Your task to perform on an android device: Open Maps and search for coffee Image 0: 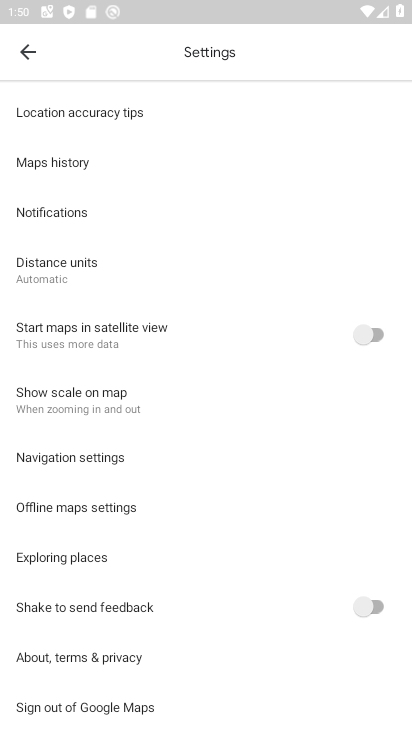
Step 0: click (21, 51)
Your task to perform on an android device: Open Maps and search for coffee Image 1: 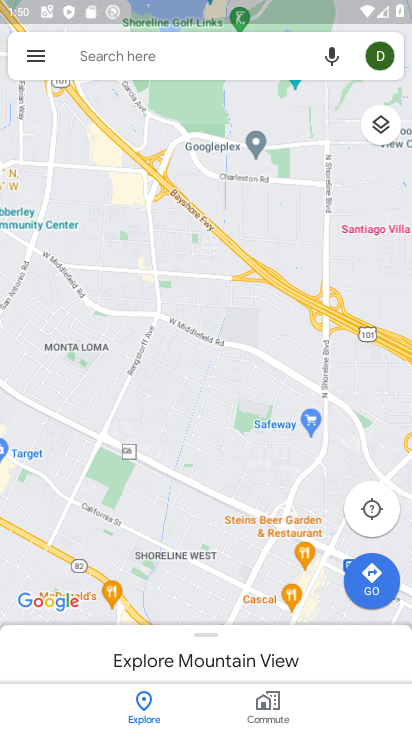
Step 1: click (110, 49)
Your task to perform on an android device: Open Maps and search for coffee Image 2: 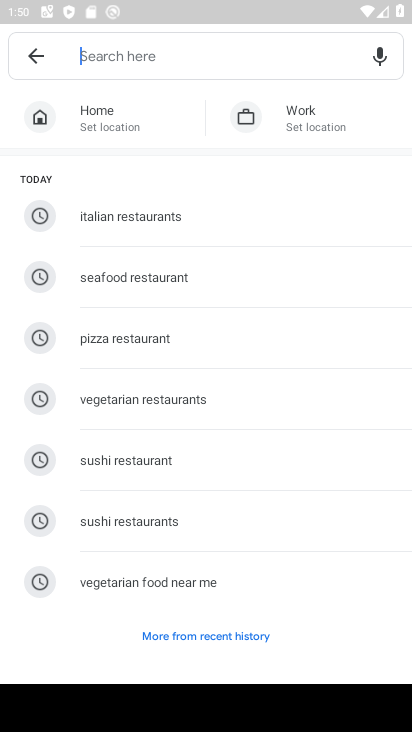
Step 2: drag from (168, 552) to (169, 173)
Your task to perform on an android device: Open Maps and search for coffee Image 3: 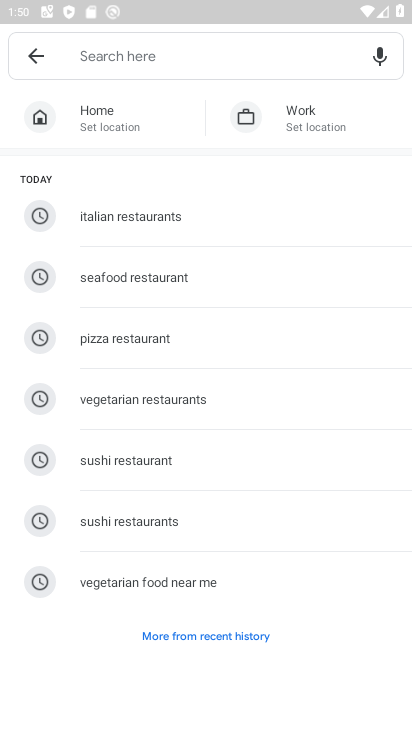
Step 3: type "coffee"
Your task to perform on an android device: Open Maps and search for coffee Image 4: 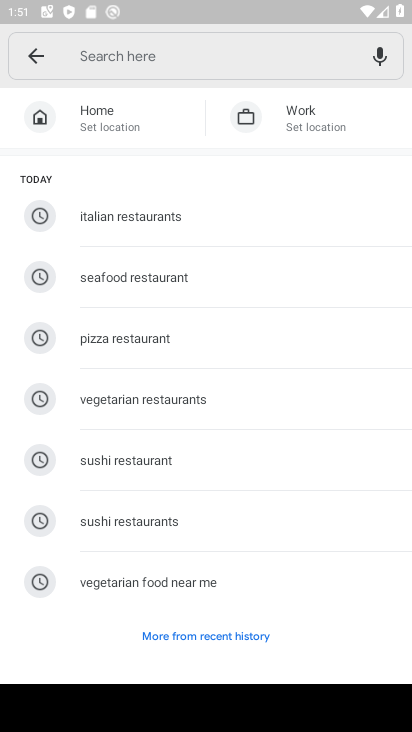
Step 4: click (121, 44)
Your task to perform on an android device: Open Maps and search for coffee Image 5: 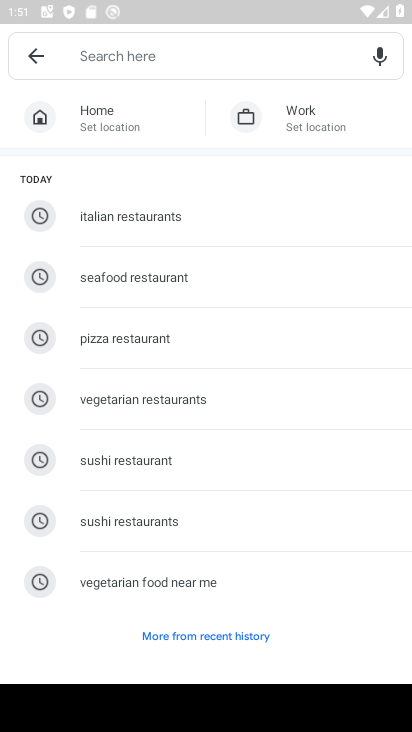
Step 5: type "coffee"
Your task to perform on an android device: Open Maps and search for coffee Image 6: 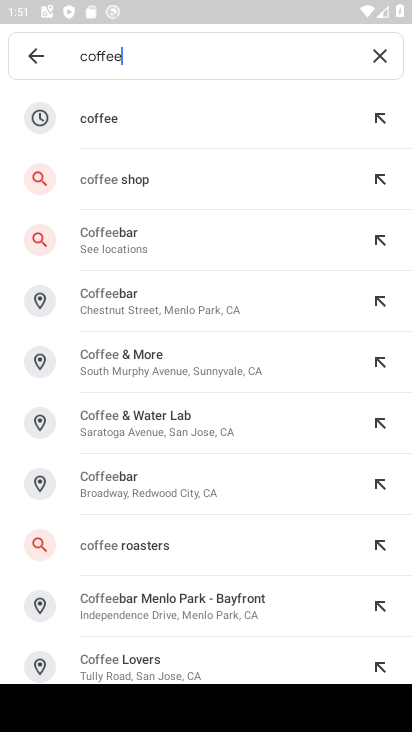
Step 6: click (129, 109)
Your task to perform on an android device: Open Maps and search for coffee Image 7: 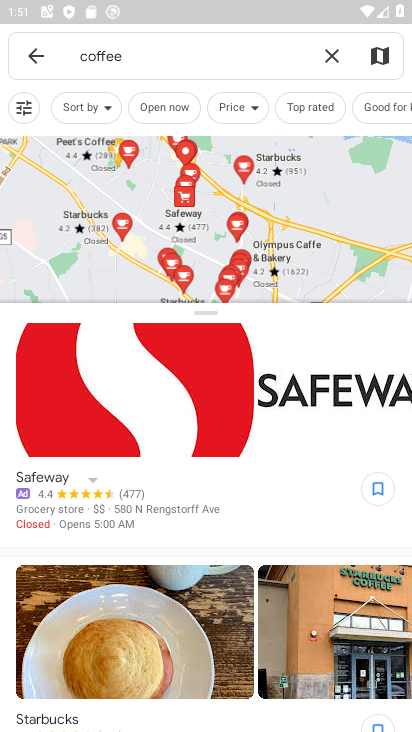
Step 7: task complete